Your task to perform on an android device: What's the weather today? Image 0: 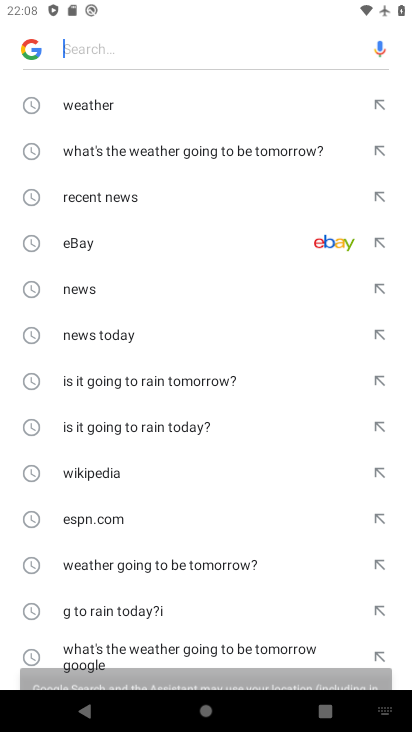
Step 0: press home button
Your task to perform on an android device: What's the weather today? Image 1: 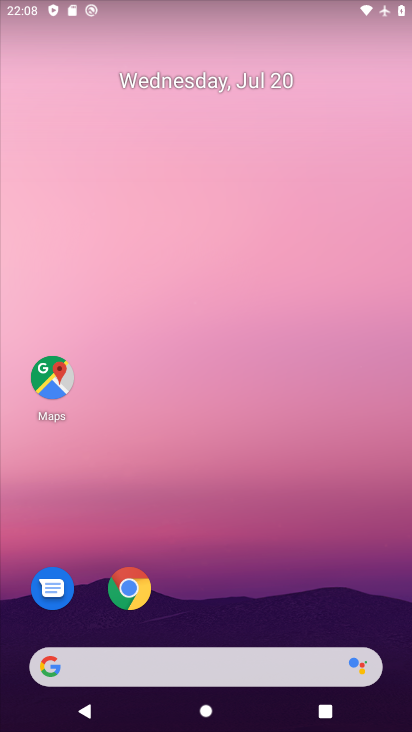
Step 1: drag from (10, 292) to (376, 312)
Your task to perform on an android device: What's the weather today? Image 2: 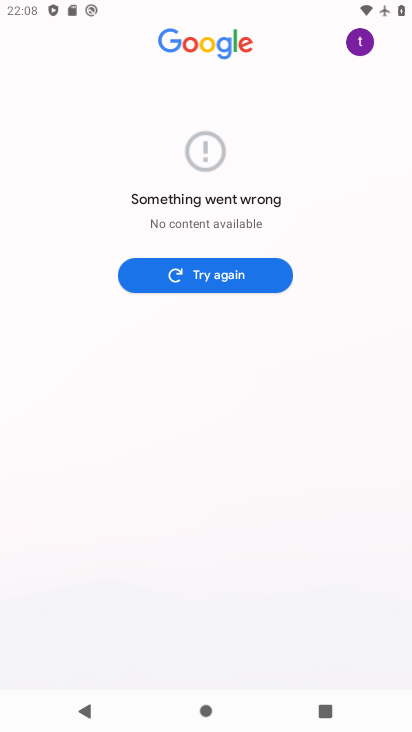
Step 2: click (170, 267)
Your task to perform on an android device: What's the weather today? Image 3: 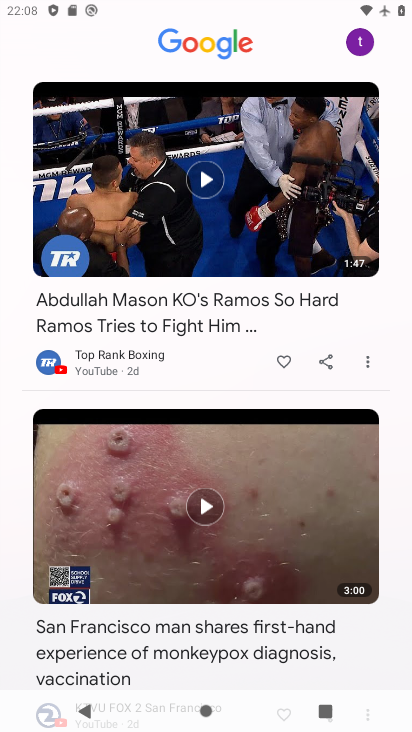
Step 3: drag from (225, 107) to (209, 483)
Your task to perform on an android device: What's the weather today? Image 4: 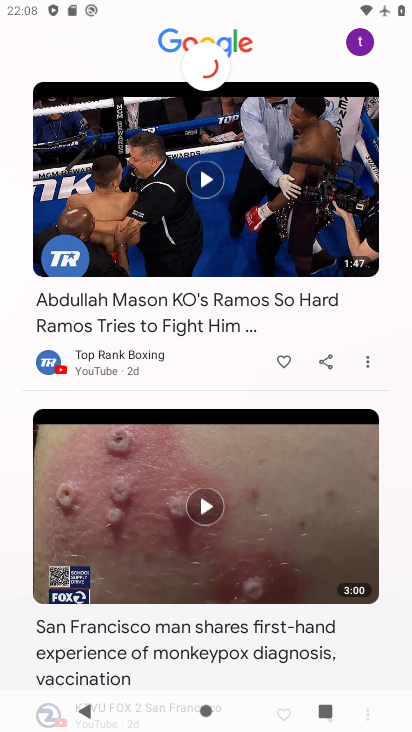
Step 4: press back button
Your task to perform on an android device: What's the weather today? Image 5: 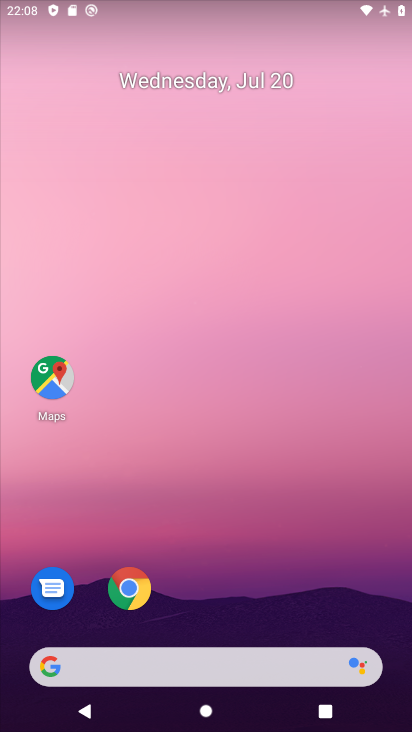
Step 5: click (138, 663)
Your task to perform on an android device: What's the weather today? Image 6: 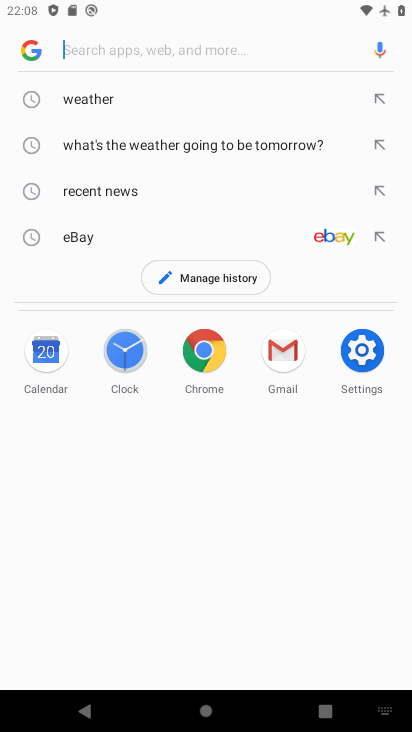
Step 6: click (92, 105)
Your task to perform on an android device: What's the weather today? Image 7: 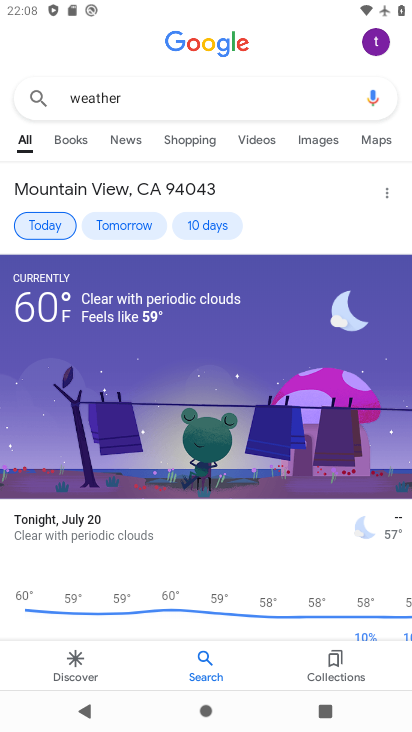
Step 7: task complete